Your task to perform on an android device: change the upload size in google photos Image 0: 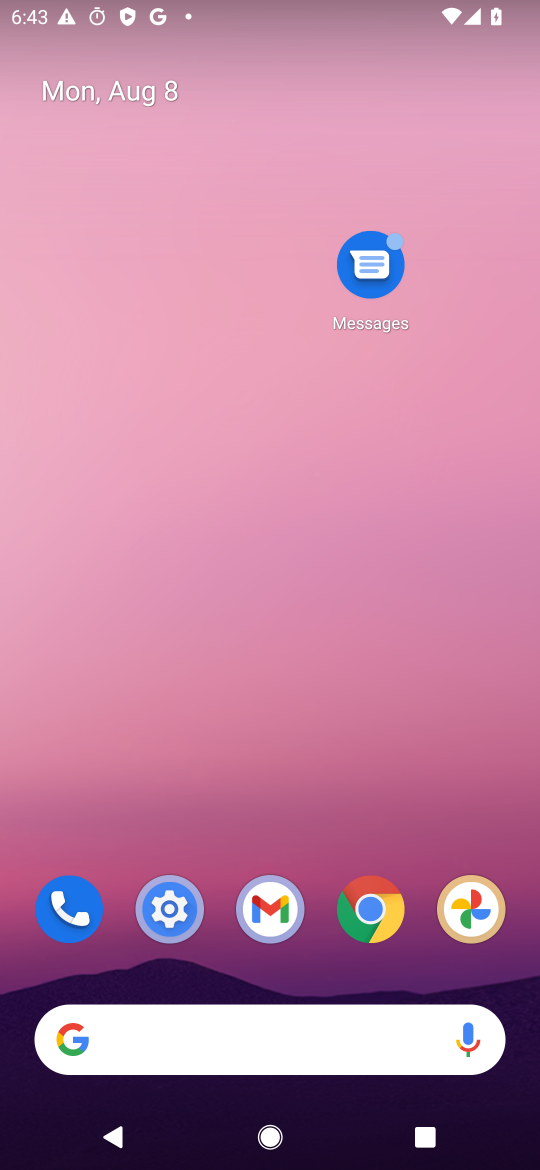
Step 0: drag from (351, 974) to (507, 299)
Your task to perform on an android device: change the upload size in google photos Image 1: 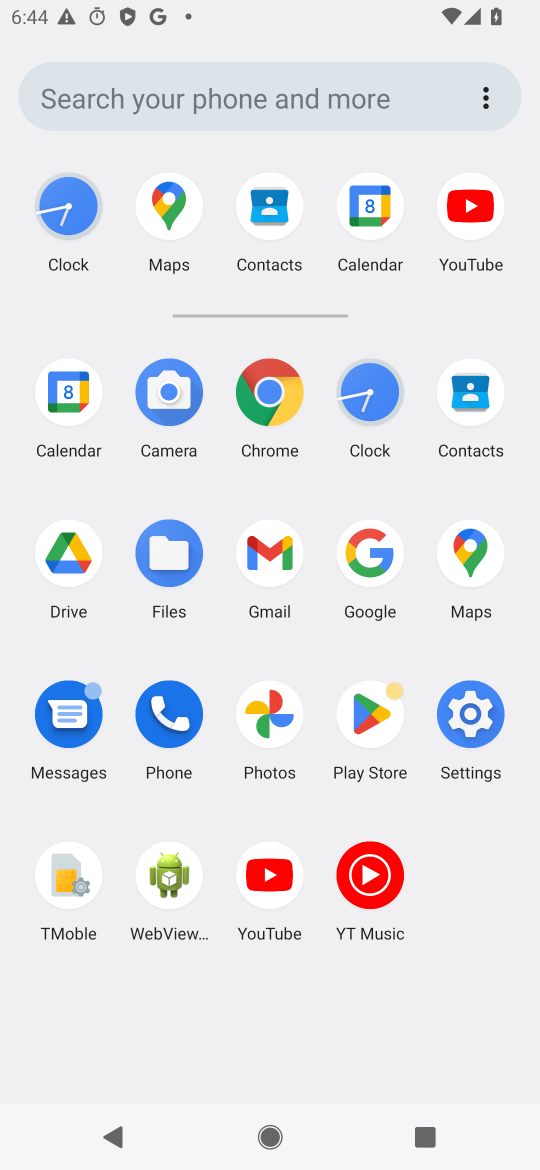
Step 1: click (267, 726)
Your task to perform on an android device: change the upload size in google photos Image 2: 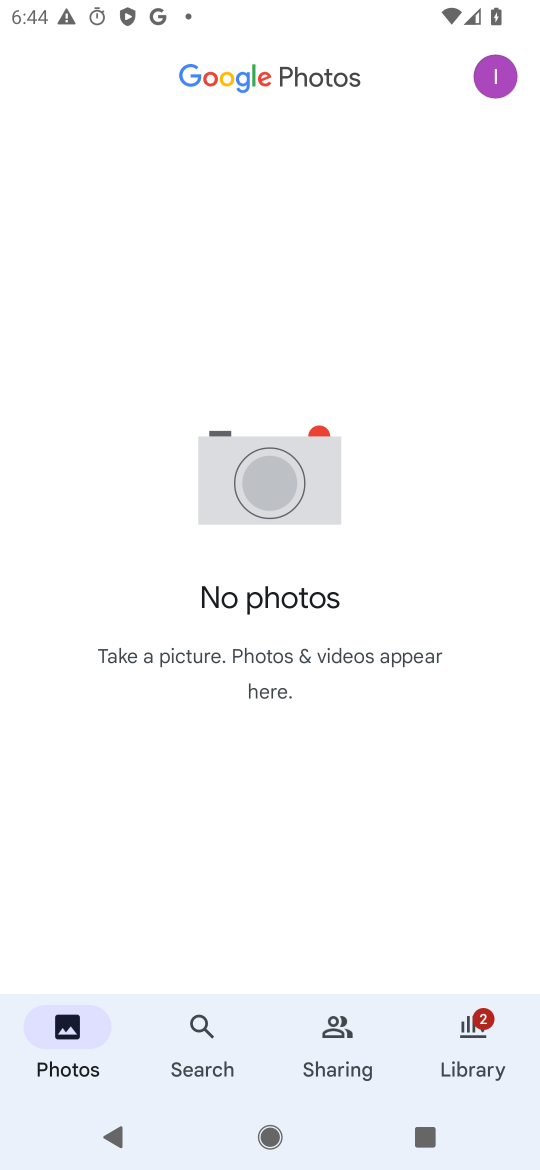
Step 2: click (495, 69)
Your task to perform on an android device: change the upload size in google photos Image 3: 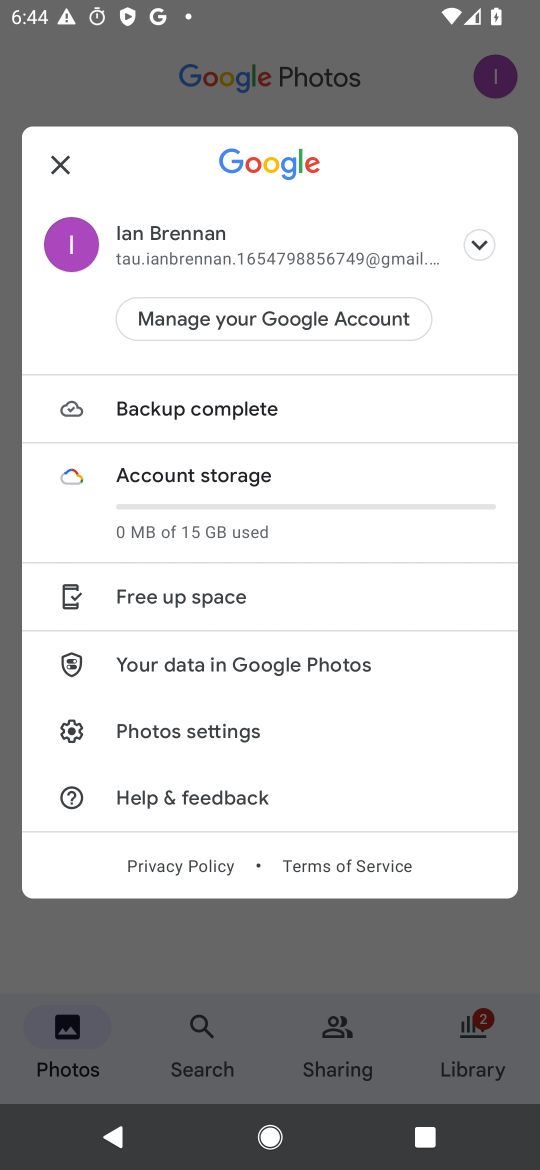
Step 3: click (169, 737)
Your task to perform on an android device: change the upload size in google photos Image 4: 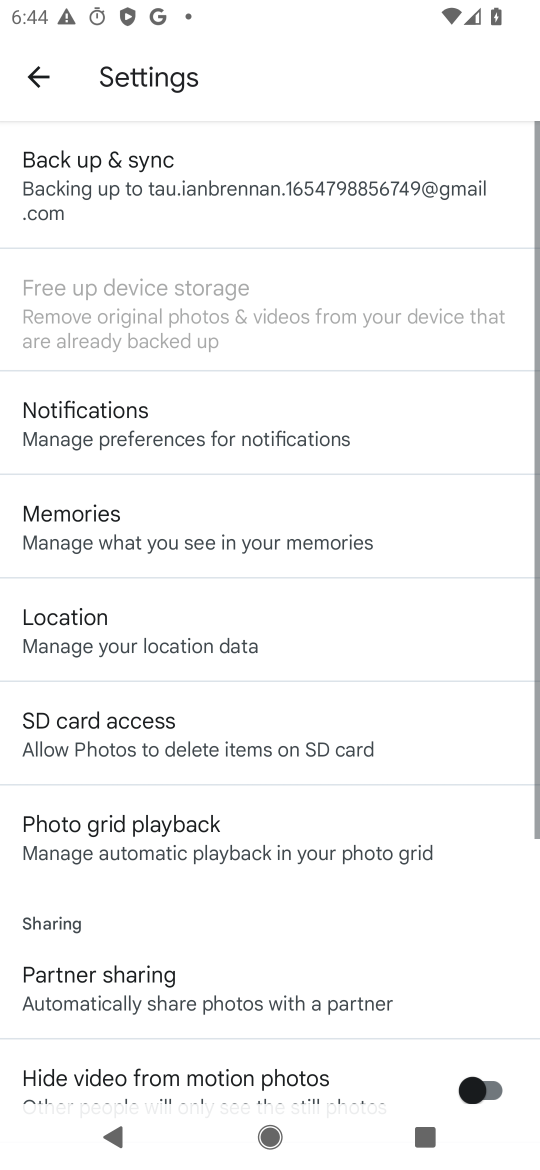
Step 4: click (283, 223)
Your task to perform on an android device: change the upload size in google photos Image 5: 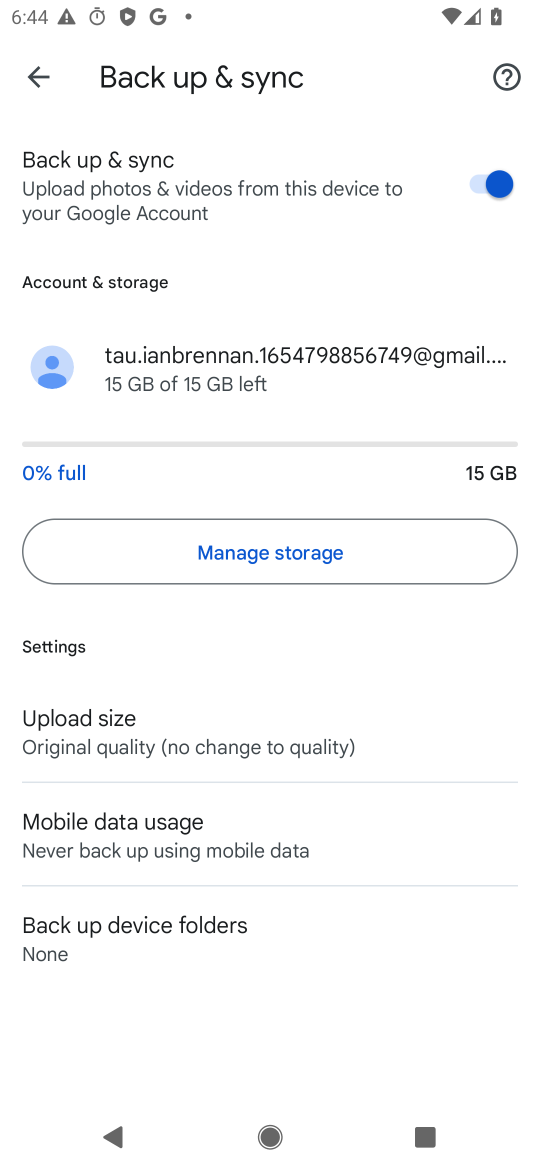
Step 5: click (119, 715)
Your task to perform on an android device: change the upload size in google photos Image 6: 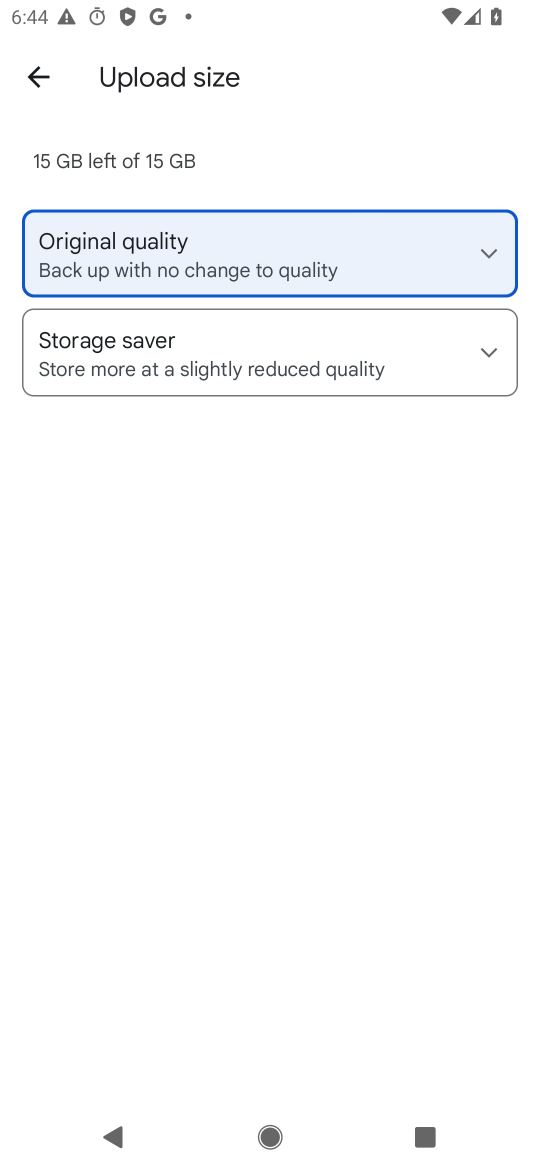
Step 6: click (477, 345)
Your task to perform on an android device: change the upload size in google photos Image 7: 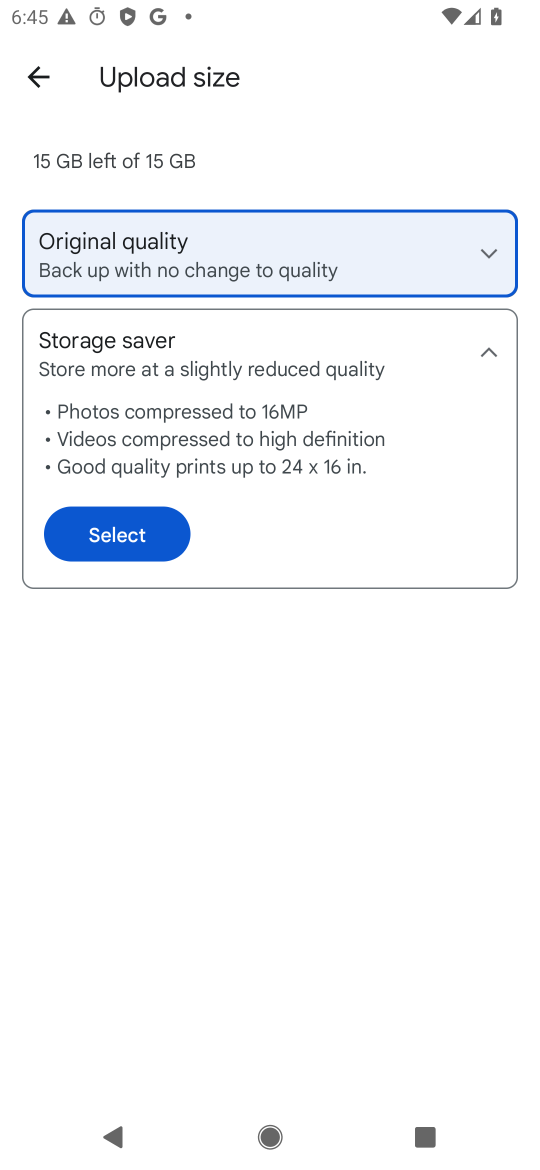
Step 7: click (137, 535)
Your task to perform on an android device: change the upload size in google photos Image 8: 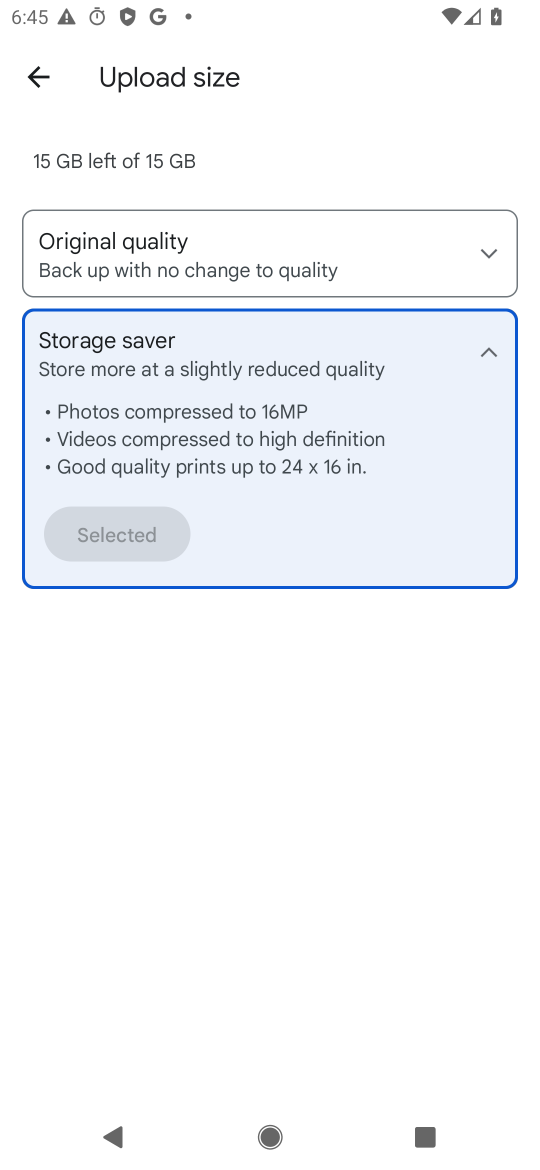
Step 8: task complete